Your task to perform on an android device: Open the Play Movies app and select the watchlist tab. Image 0: 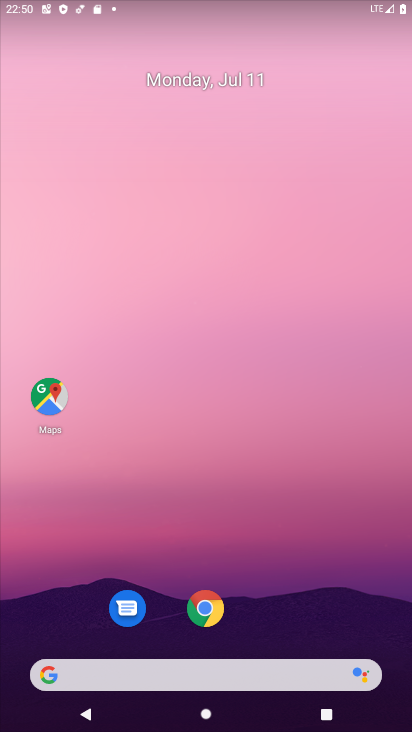
Step 0: drag from (32, 705) to (380, 7)
Your task to perform on an android device: Open the Play Movies app and select the watchlist tab. Image 1: 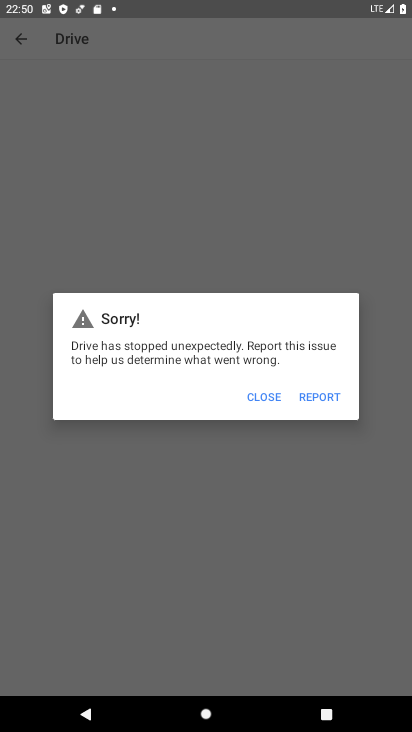
Step 1: press home button
Your task to perform on an android device: Open the Play Movies app and select the watchlist tab. Image 2: 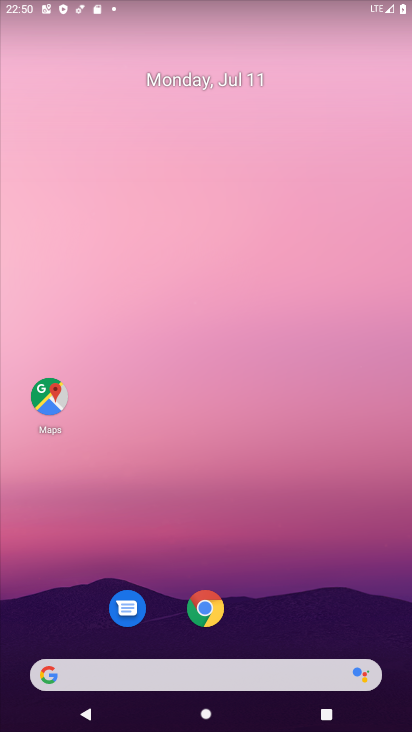
Step 2: drag from (57, 708) to (296, 30)
Your task to perform on an android device: Open the Play Movies app and select the watchlist tab. Image 3: 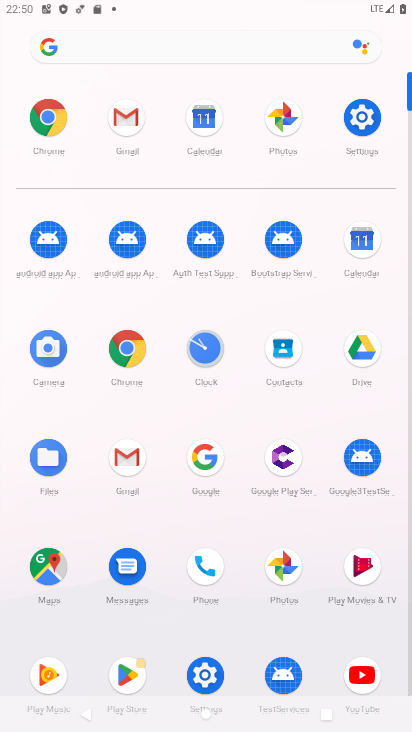
Step 3: click (355, 579)
Your task to perform on an android device: Open the Play Movies app and select the watchlist tab. Image 4: 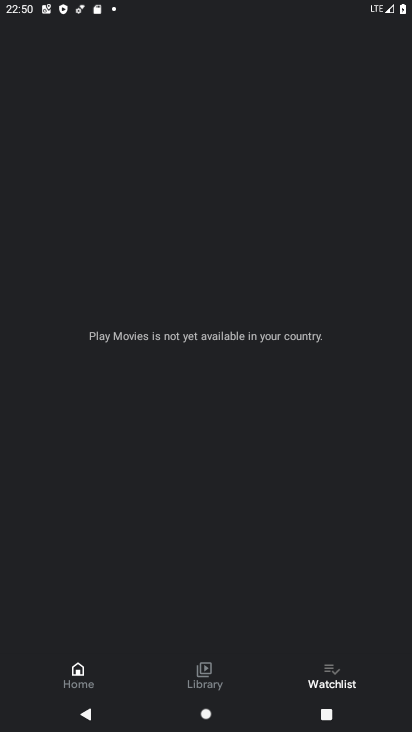
Step 4: click (326, 713)
Your task to perform on an android device: Open the Play Movies app and select the watchlist tab. Image 5: 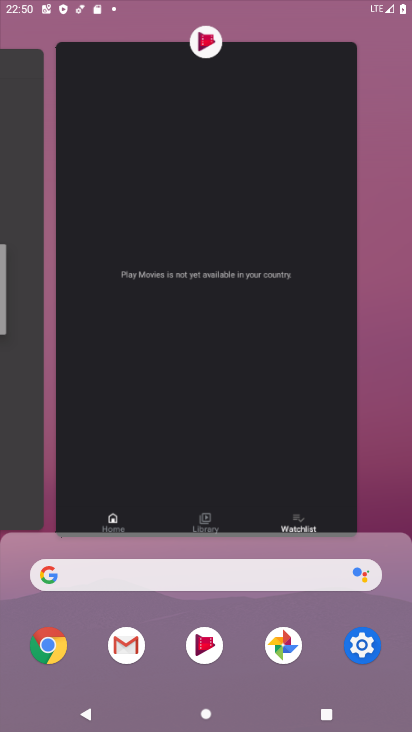
Step 5: click (203, 422)
Your task to perform on an android device: Open the Play Movies app and select the watchlist tab. Image 6: 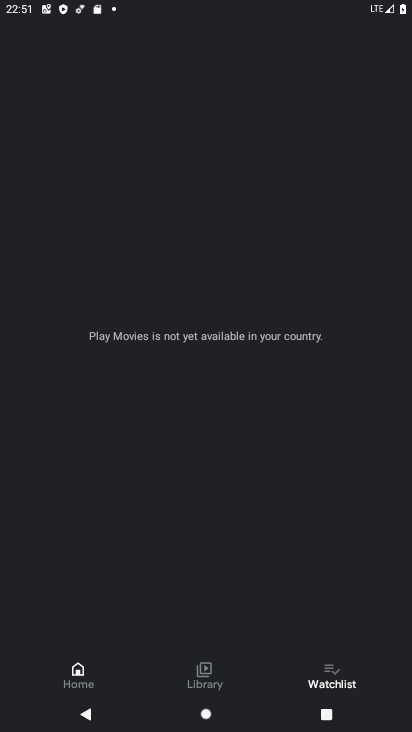
Step 6: task complete